Your task to perform on an android device: Go to calendar. Show me events next week Image 0: 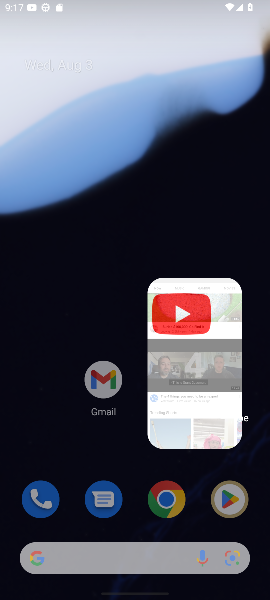
Step 0: press home button
Your task to perform on an android device: Go to calendar. Show me events next week Image 1: 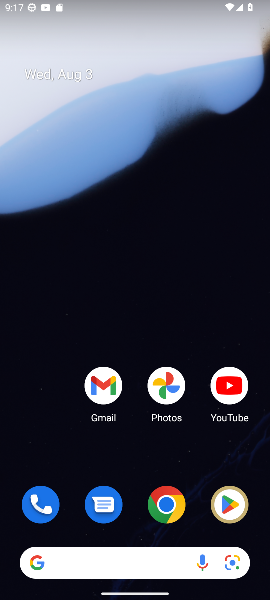
Step 1: drag from (135, 462) to (138, 32)
Your task to perform on an android device: Go to calendar. Show me events next week Image 2: 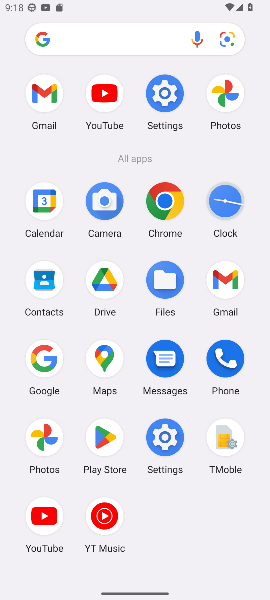
Step 2: click (41, 196)
Your task to perform on an android device: Go to calendar. Show me events next week Image 3: 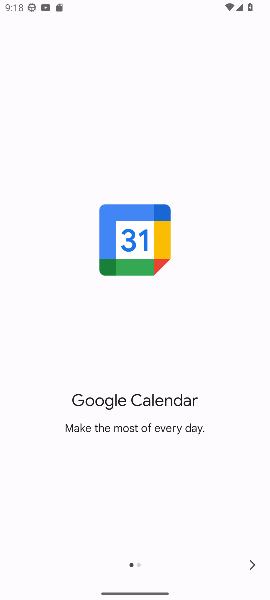
Step 3: click (248, 558)
Your task to perform on an android device: Go to calendar. Show me events next week Image 4: 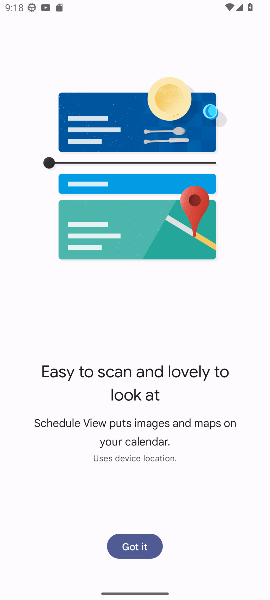
Step 4: click (128, 542)
Your task to perform on an android device: Go to calendar. Show me events next week Image 5: 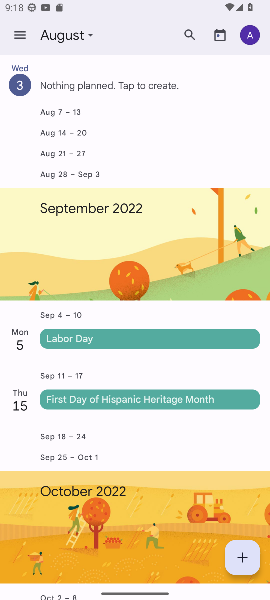
Step 5: click (19, 32)
Your task to perform on an android device: Go to calendar. Show me events next week Image 6: 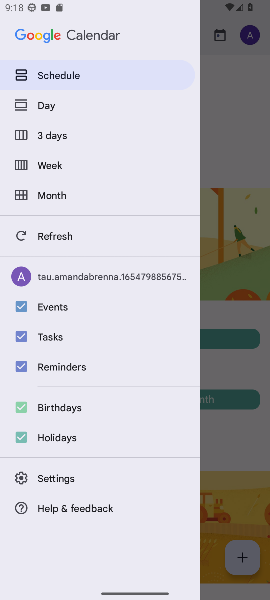
Step 6: click (21, 432)
Your task to perform on an android device: Go to calendar. Show me events next week Image 7: 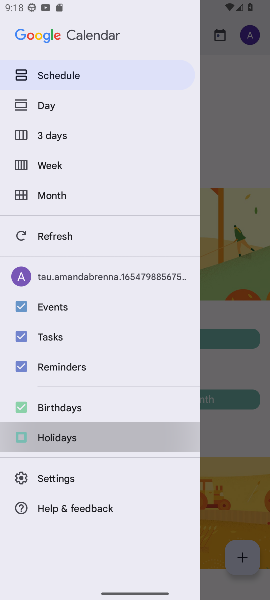
Step 7: click (18, 391)
Your task to perform on an android device: Go to calendar. Show me events next week Image 8: 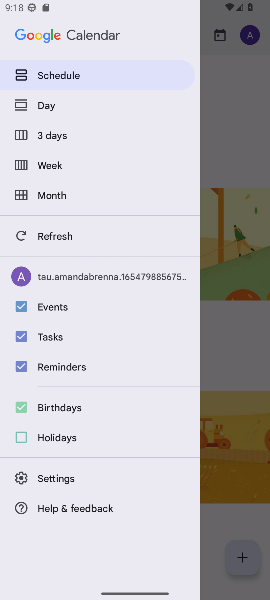
Step 8: click (20, 370)
Your task to perform on an android device: Go to calendar. Show me events next week Image 9: 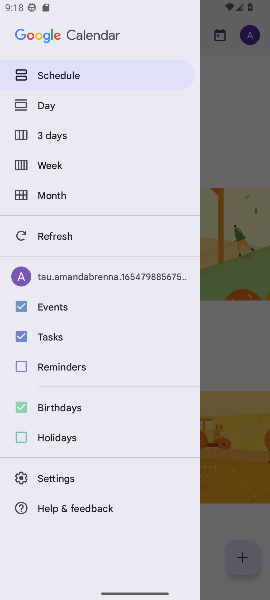
Step 9: click (20, 337)
Your task to perform on an android device: Go to calendar. Show me events next week Image 10: 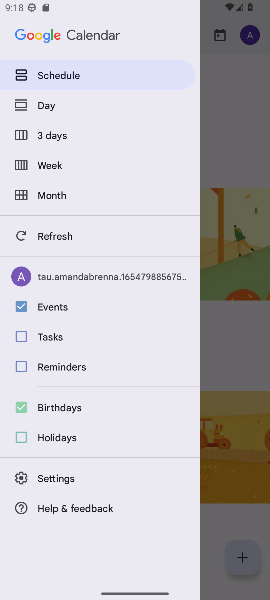
Step 10: click (22, 406)
Your task to perform on an android device: Go to calendar. Show me events next week Image 11: 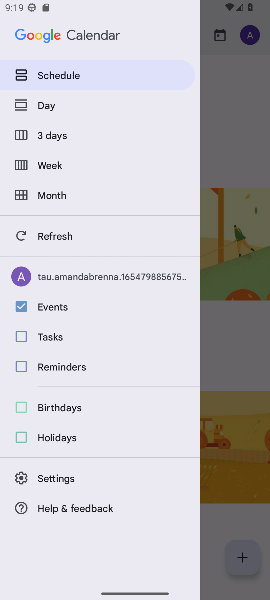
Step 11: click (32, 161)
Your task to perform on an android device: Go to calendar. Show me events next week Image 12: 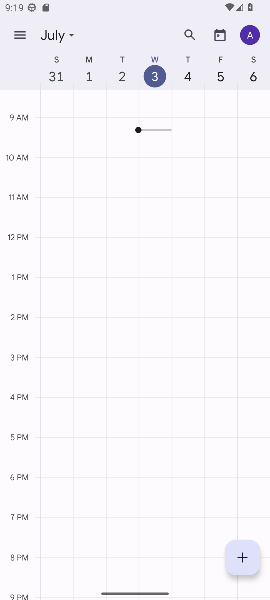
Step 12: drag from (255, 75) to (7, 83)
Your task to perform on an android device: Go to calendar. Show me events next week Image 13: 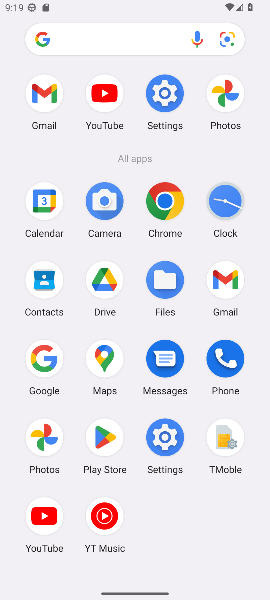
Step 13: click (38, 195)
Your task to perform on an android device: Go to calendar. Show me events next week Image 14: 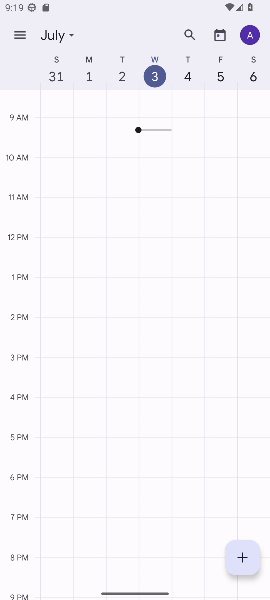
Step 14: task complete